Your task to perform on an android device: Go to display settings Image 0: 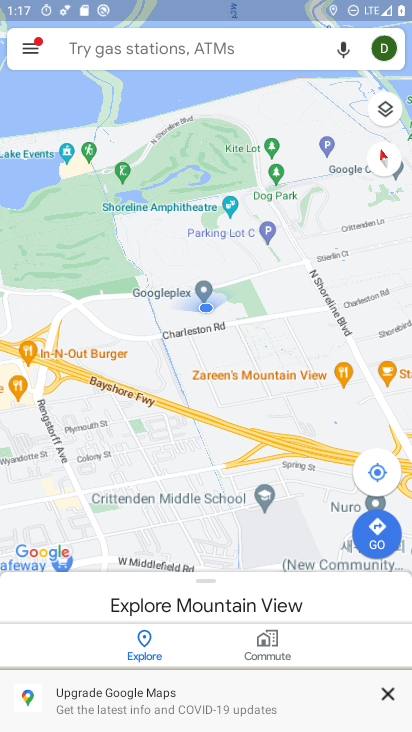
Step 0: press home button
Your task to perform on an android device: Go to display settings Image 1: 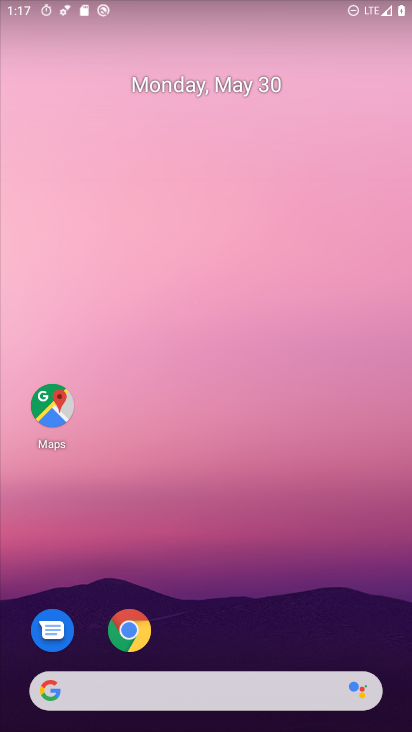
Step 1: drag from (226, 713) to (277, 185)
Your task to perform on an android device: Go to display settings Image 2: 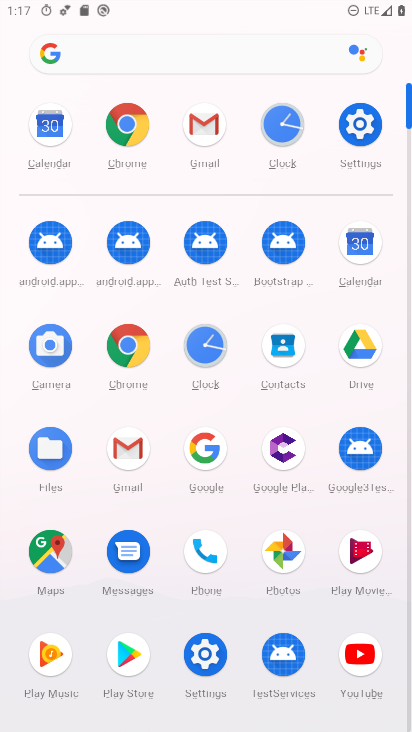
Step 2: click (355, 137)
Your task to perform on an android device: Go to display settings Image 3: 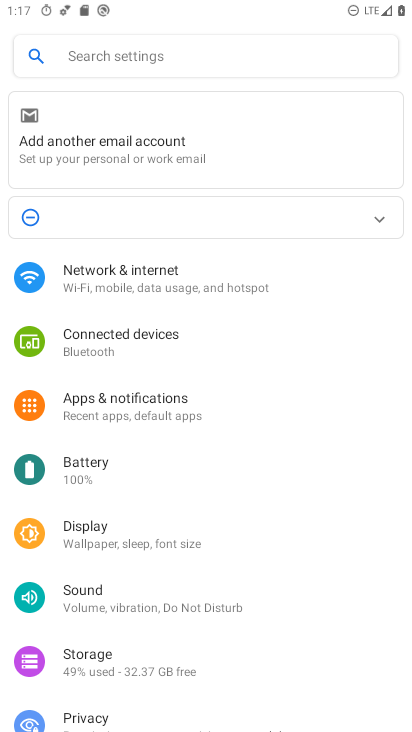
Step 3: drag from (176, 471) to (178, 291)
Your task to perform on an android device: Go to display settings Image 4: 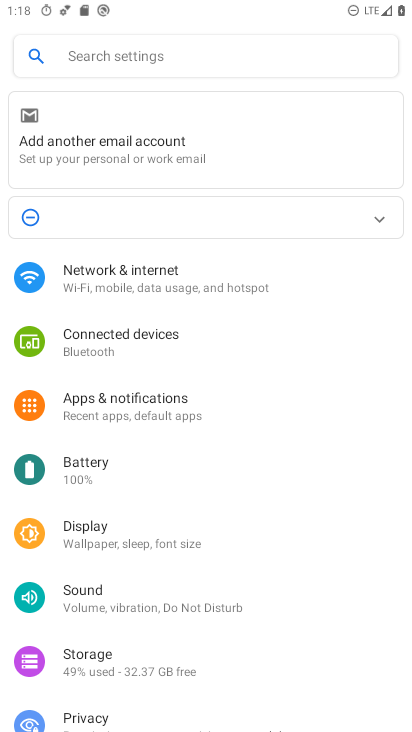
Step 4: click (101, 534)
Your task to perform on an android device: Go to display settings Image 5: 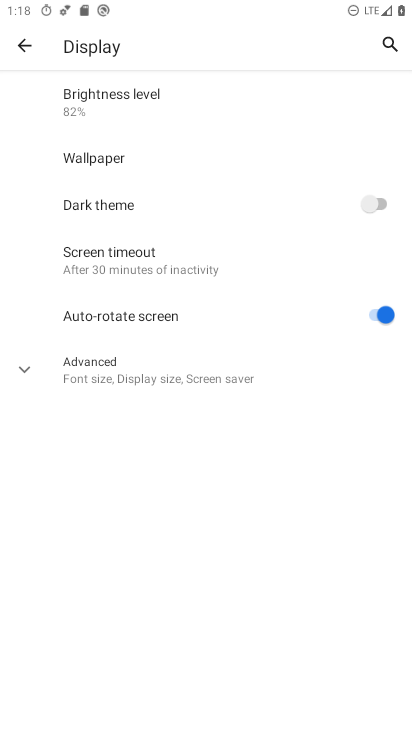
Step 5: task complete